Your task to perform on an android device: find which apps use the phone's location Image 0: 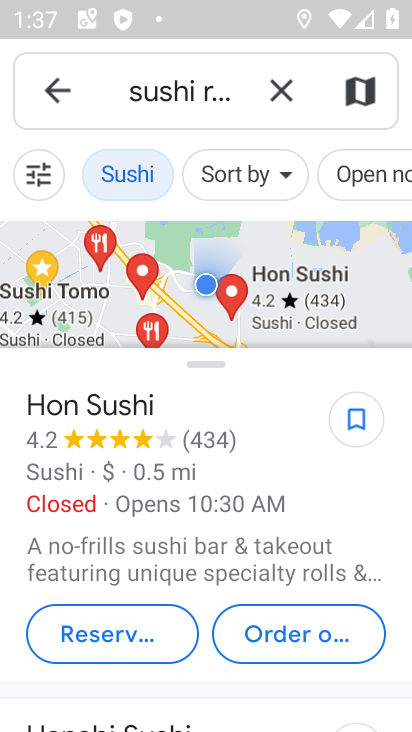
Step 0: press home button
Your task to perform on an android device: find which apps use the phone's location Image 1: 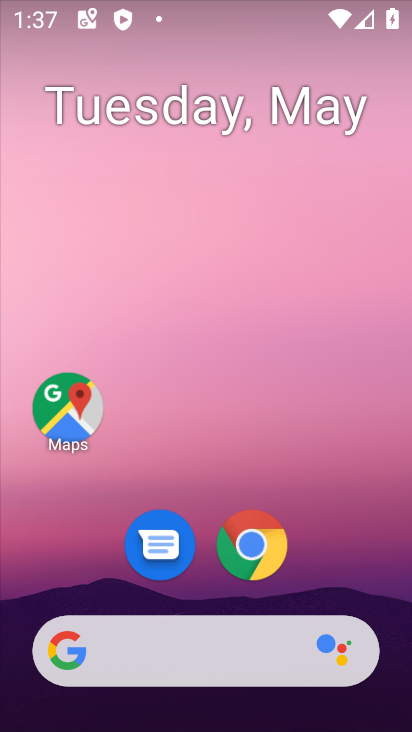
Step 1: drag from (392, 621) to (361, 147)
Your task to perform on an android device: find which apps use the phone's location Image 2: 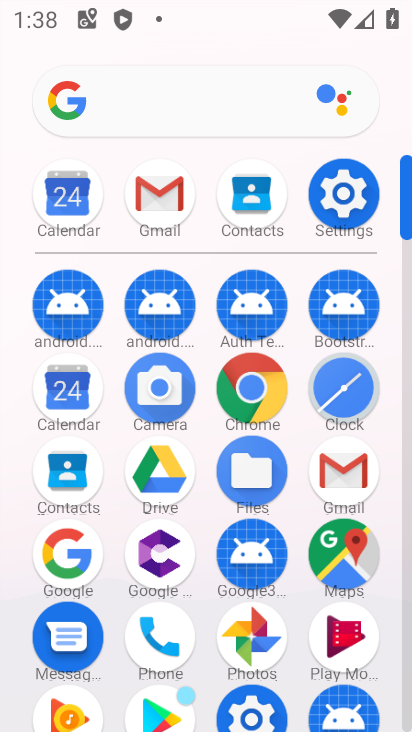
Step 2: click (404, 694)
Your task to perform on an android device: find which apps use the phone's location Image 3: 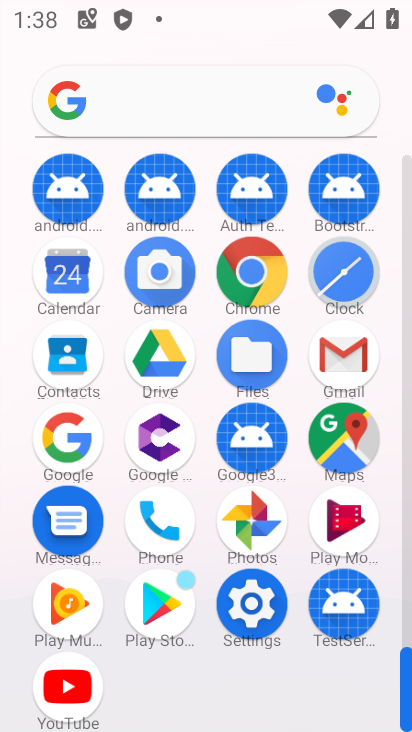
Step 3: click (253, 599)
Your task to perform on an android device: find which apps use the phone's location Image 4: 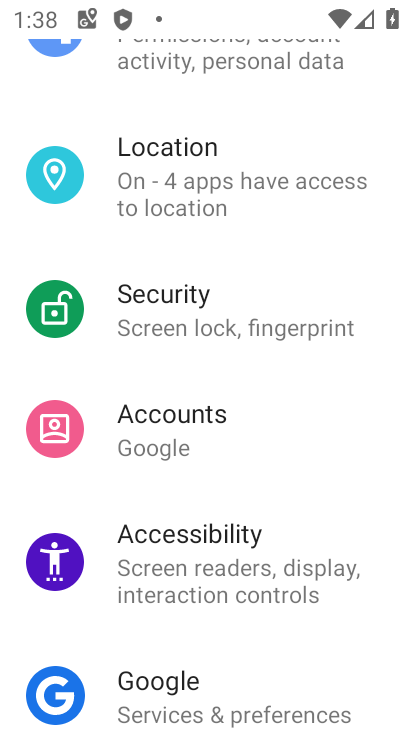
Step 4: click (176, 193)
Your task to perform on an android device: find which apps use the phone's location Image 5: 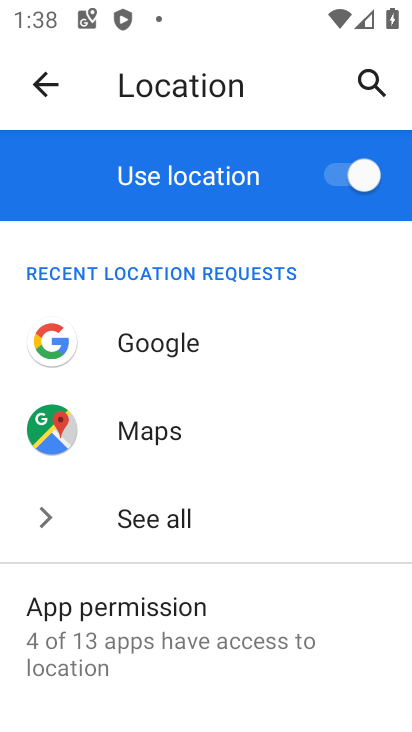
Step 5: drag from (245, 593) to (243, 161)
Your task to perform on an android device: find which apps use the phone's location Image 6: 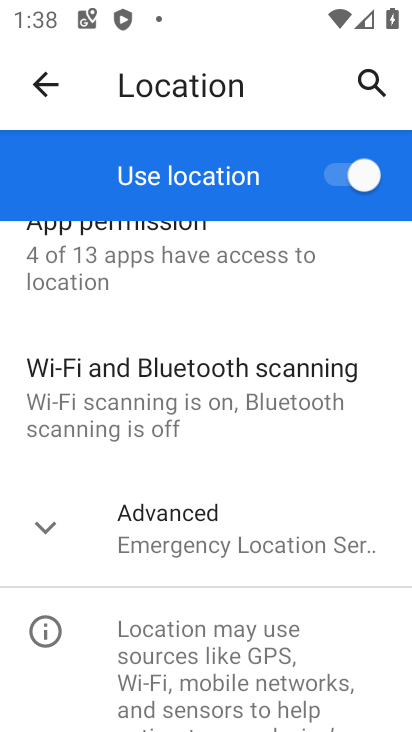
Step 6: click (95, 261)
Your task to perform on an android device: find which apps use the phone's location Image 7: 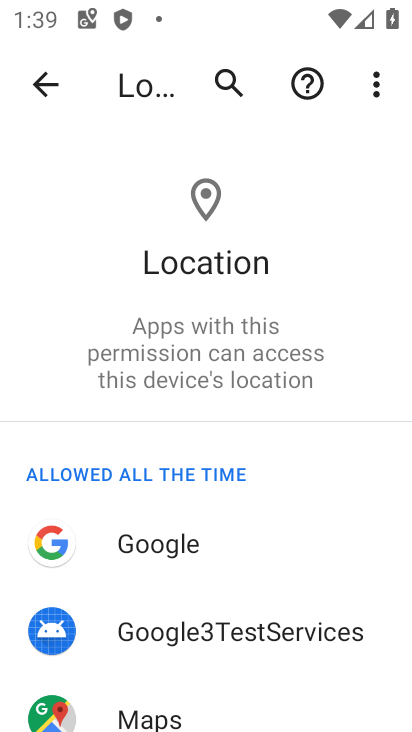
Step 7: drag from (173, 576) to (196, 167)
Your task to perform on an android device: find which apps use the phone's location Image 8: 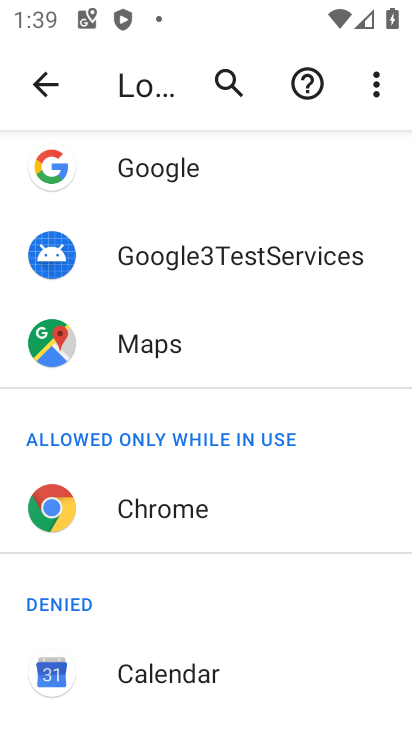
Step 8: drag from (241, 657) to (218, 174)
Your task to perform on an android device: find which apps use the phone's location Image 9: 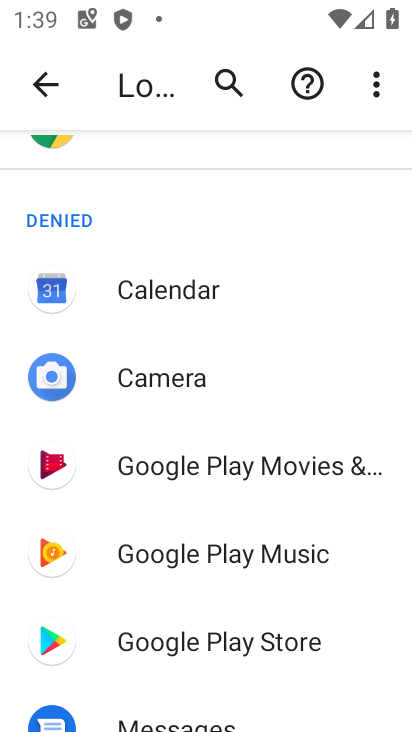
Step 9: drag from (225, 553) to (245, 236)
Your task to perform on an android device: find which apps use the phone's location Image 10: 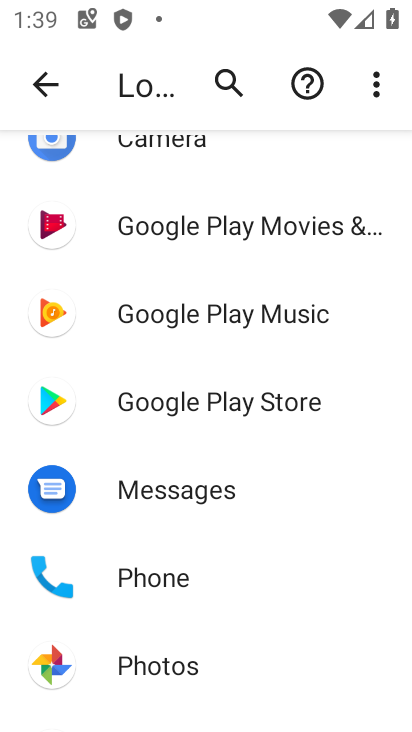
Step 10: click (150, 591)
Your task to perform on an android device: find which apps use the phone's location Image 11: 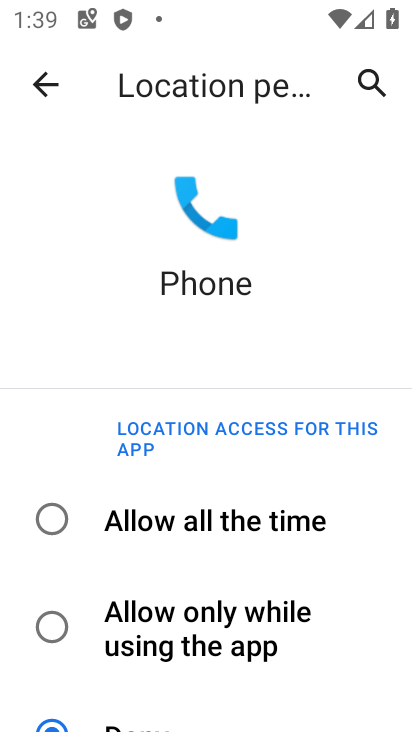
Step 11: task complete